Your task to perform on an android device: Open privacy settings Image 0: 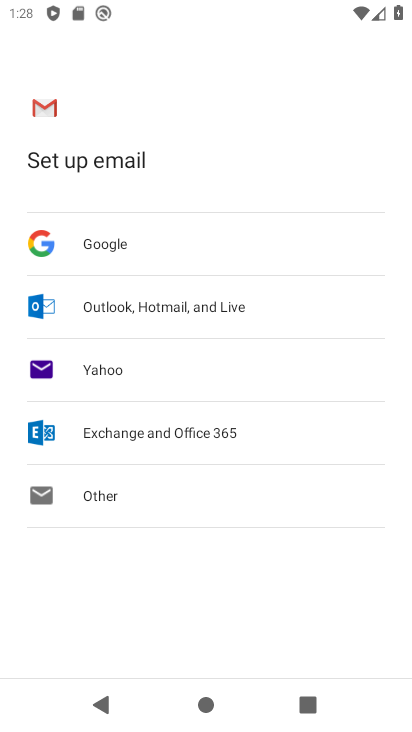
Step 0: press home button
Your task to perform on an android device: Open privacy settings Image 1: 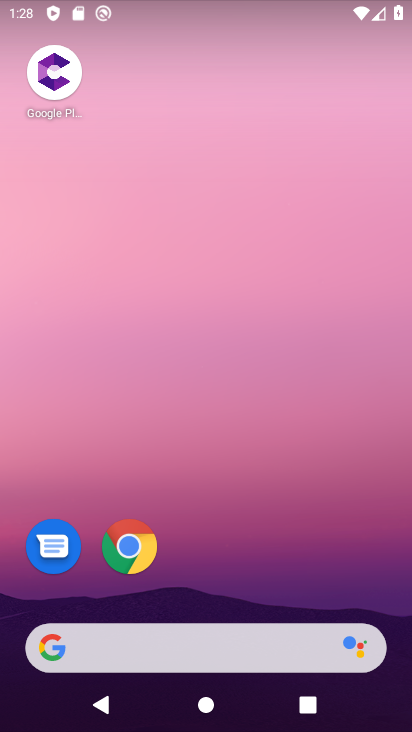
Step 1: drag from (243, 608) to (204, 67)
Your task to perform on an android device: Open privacy settings Image 2: 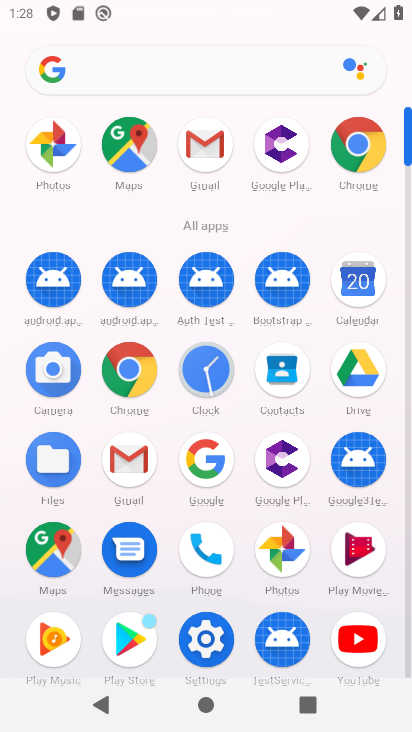
Step 2: click (215, 629)
Your task to perform on an android device: Open privacy settings Image 3: 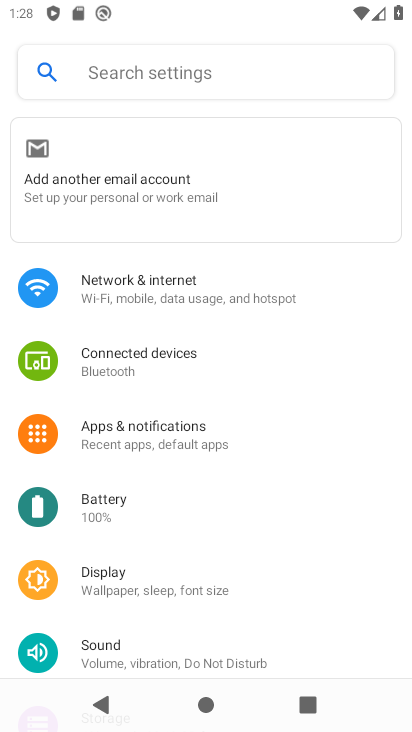
Step 3: drag from (215, 629) to (199, 237)
Your task to perform on an android device: Open privacy settings Image 4: 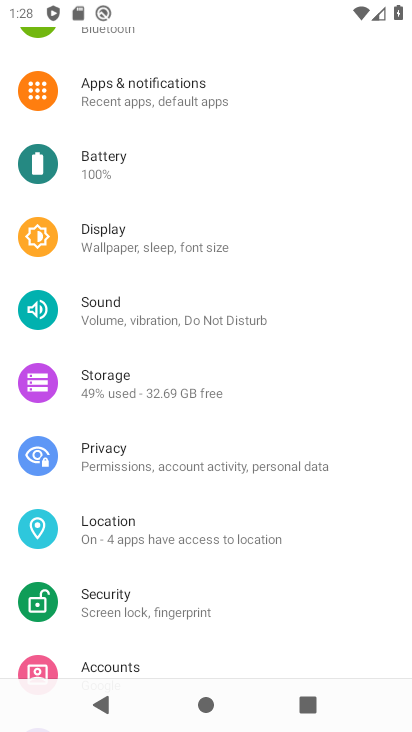
Step 4: click (207, 457)
Your task to perform on an android device: Open privacy settings Image 5: 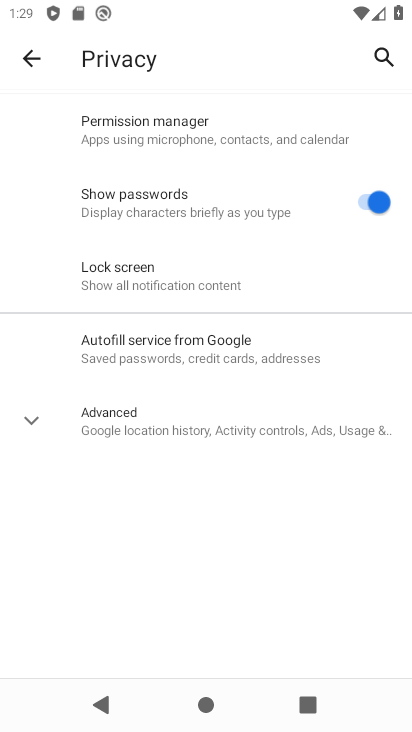
Step 5: task complete